Your task to perform on an android device: Go to Google maps Image 0: 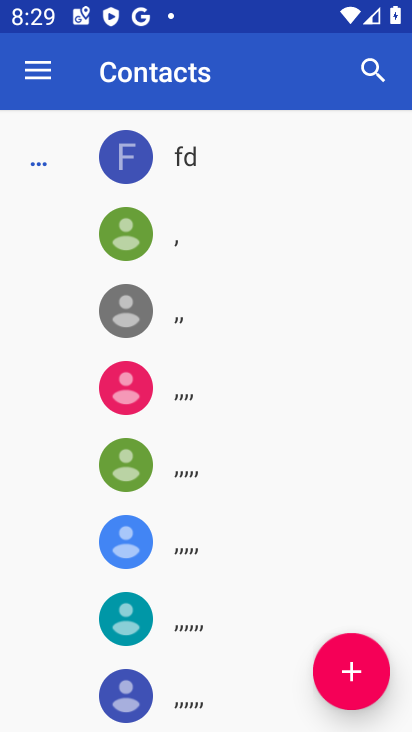
Step 0: press home button
Your task to perform on an android device: Go to Google maps Image 1: 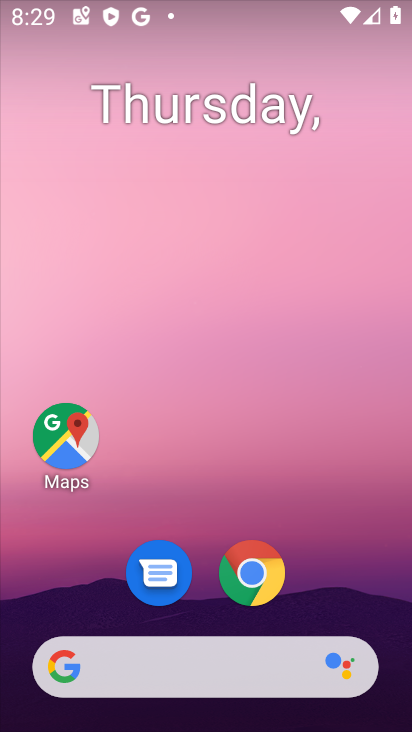
Step 1: drag from (367, 590) to (368, 192)
Your task to perform on an android device: Go to Google maps Image 2: 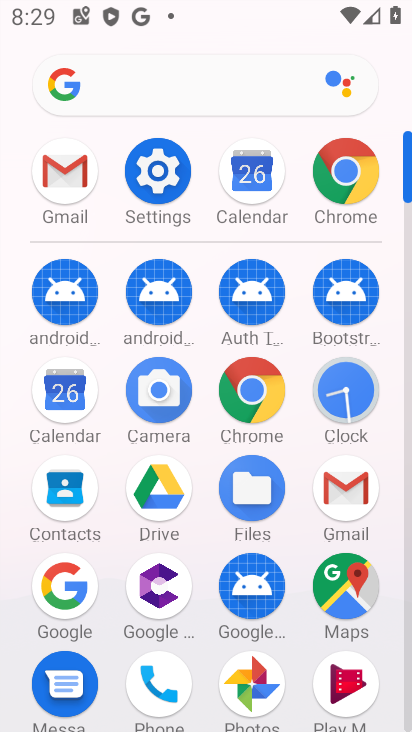
Step 2: click (340, 581)
Your task to perform on an android device: Go to Google maps Image 3: 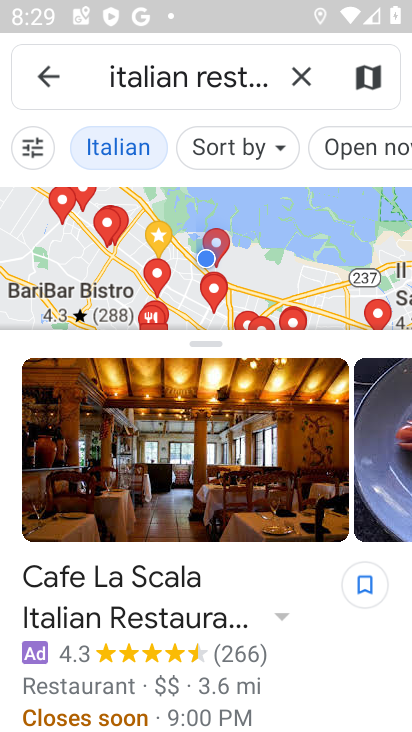
Step 3: task complete